Your task to perform on an android device: turn on data saver in the chrome app Image 0: 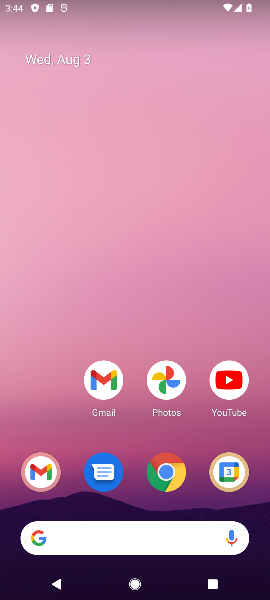
Step 0: drag from (198, 439) to (130, 46)
Your task to perform on an android device: turn on data saver in the chrome app Image 1: 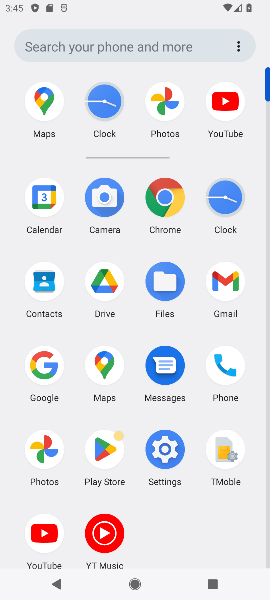
Step 1: click (167, 204)
Your task to perform on an android device: turn on data saver in the chrome app Image 2: 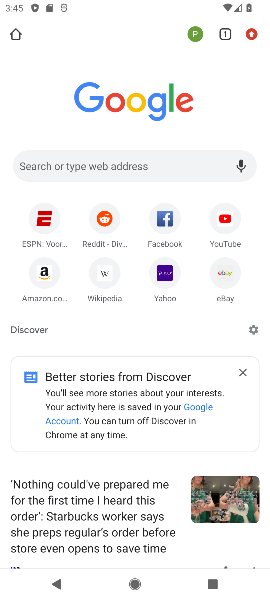
Step 2: click (249, 35)
Your task to perform on an android device: turn on data saver in the chrome app Image 3: 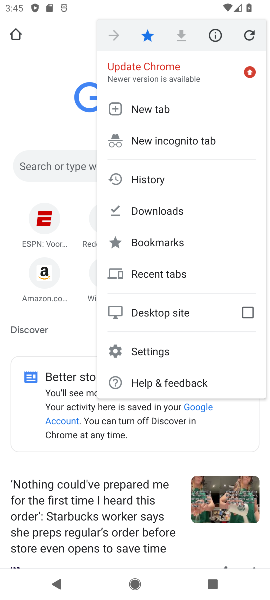
Step 3: click (150, 351)
Your task to perform on an android device: turn on data saver in the chrome app Image 4: 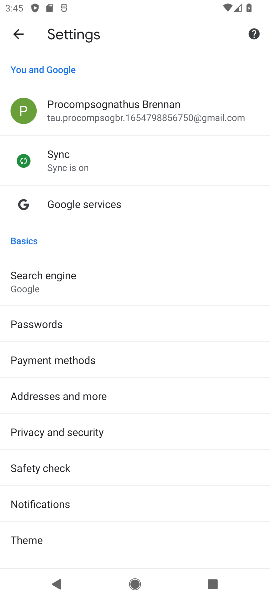
Step 4: drag from (50, 526) to (103, 113)
Your task to perform on an android device: turn on data saver in the chrome app Image 5: 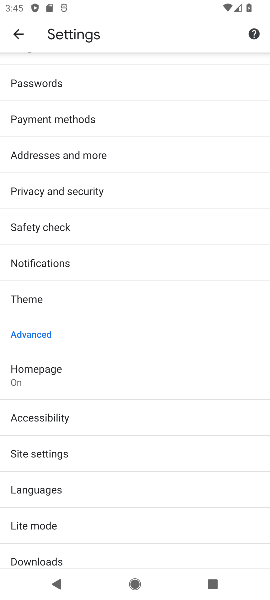
Step 5: drag from (38, 540) to (93, 165)
Your task to perform on an android device: turn on data saver in the chrome app Image 6: 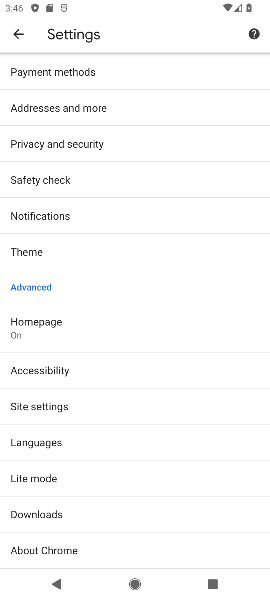
Step 6: click (63, 481)
Your task to perform on an android device: turn on data saver in the chrome app Image 7: 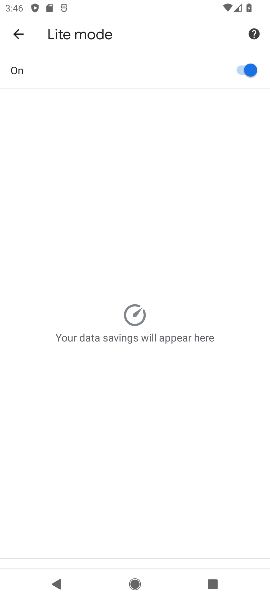
Step 7: click (239, 77)
Your task to perform on an android device: turn on data saver in the chrome app Image 8: 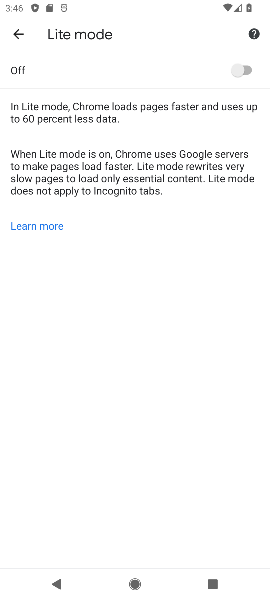
Step 8: click (239, 77)
Your task to perform on an android device: turn on data saver in the chrome app Image 9: 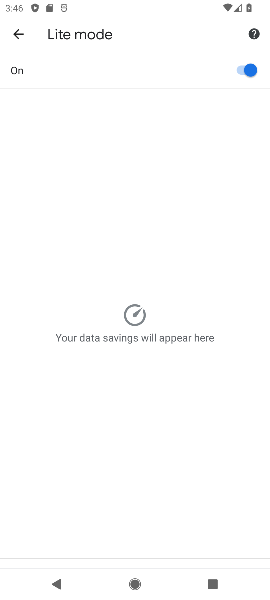
Step 9: task complete